Your task to perform on an android device: Clear the shopping cart on ebay.com. Add "jbl charge 4" to the cart on ebay.com Image 0: 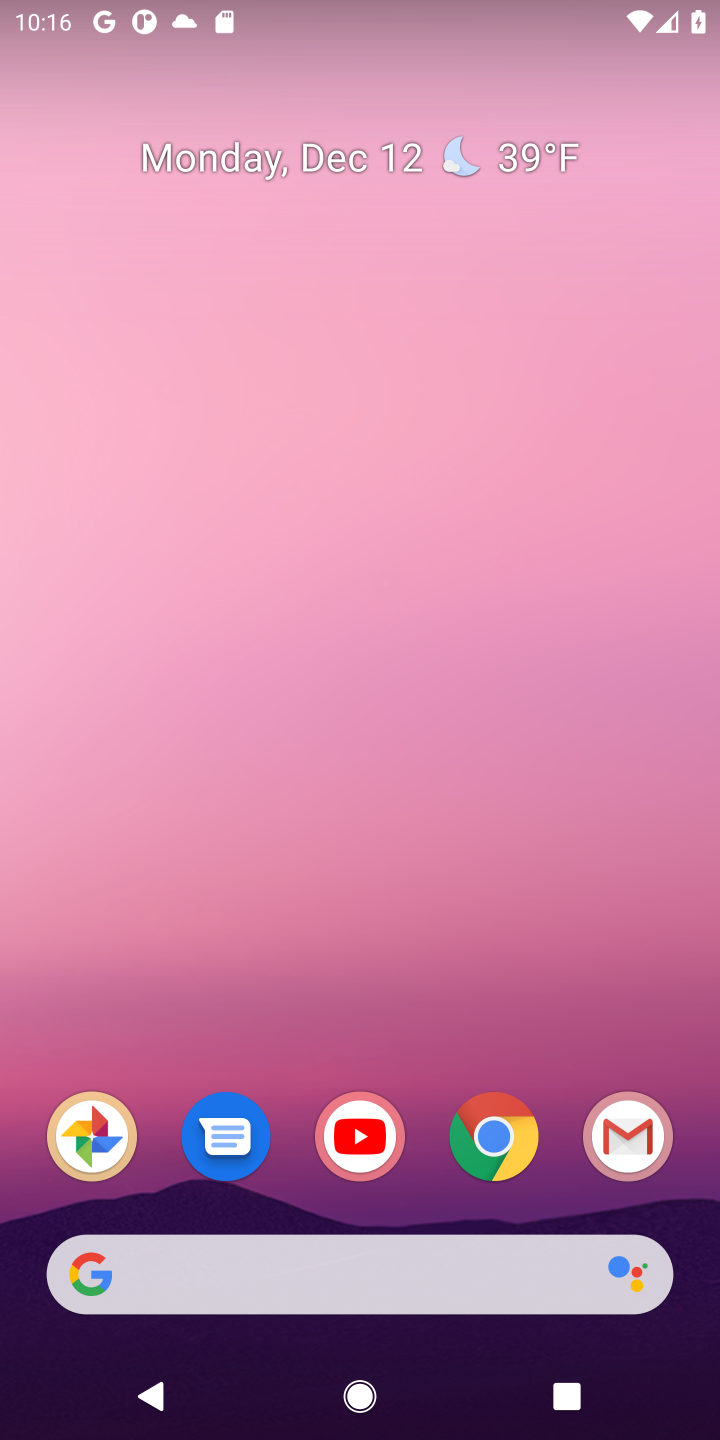
Step 0: click (489, 1143)
Your task to perform on an android device: Clear the shopping cart on ebay.com. Add "jbl charge 4" to the cart on ebay.com Image 1: 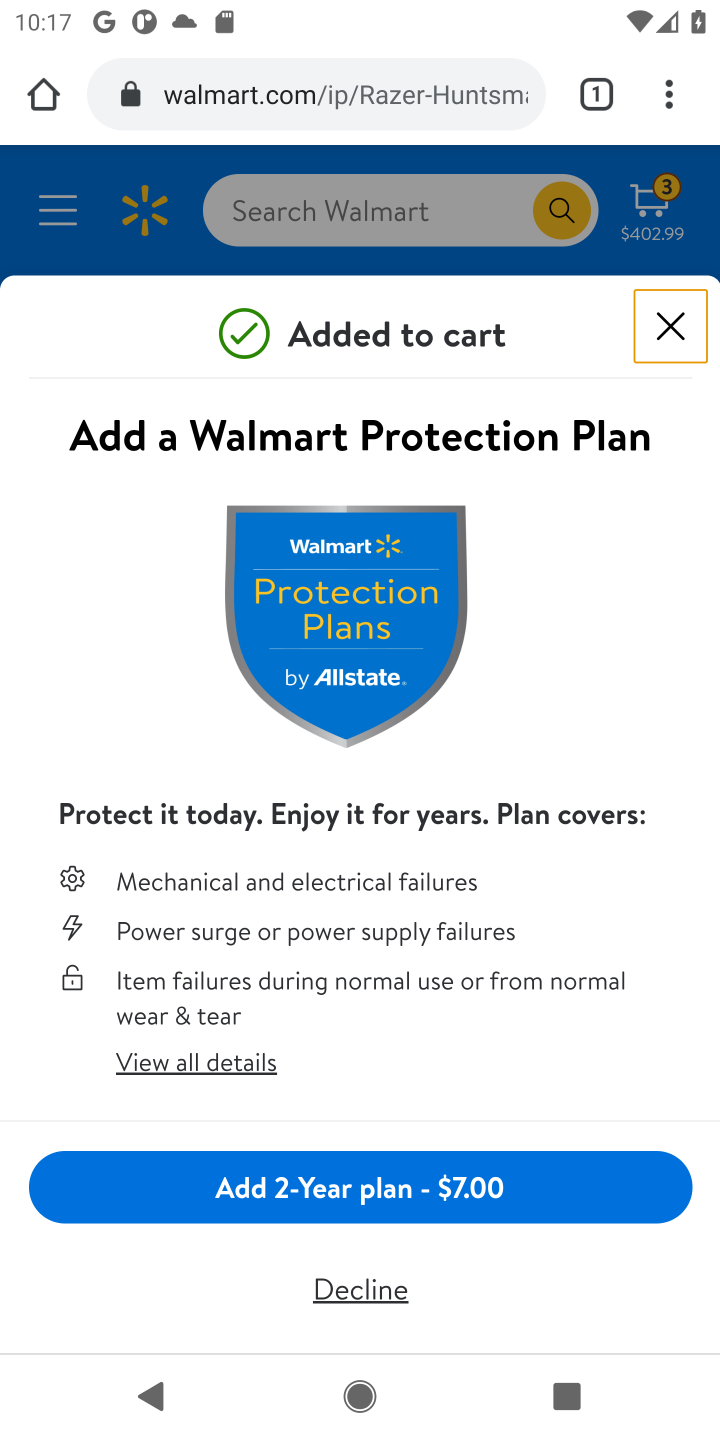
Step 1: click (360, 92)
Your task to perform on an android device: Clear the shopping cart on ebay.com. Add "jbl charge 4" to the cart on ebay.com Image 2: 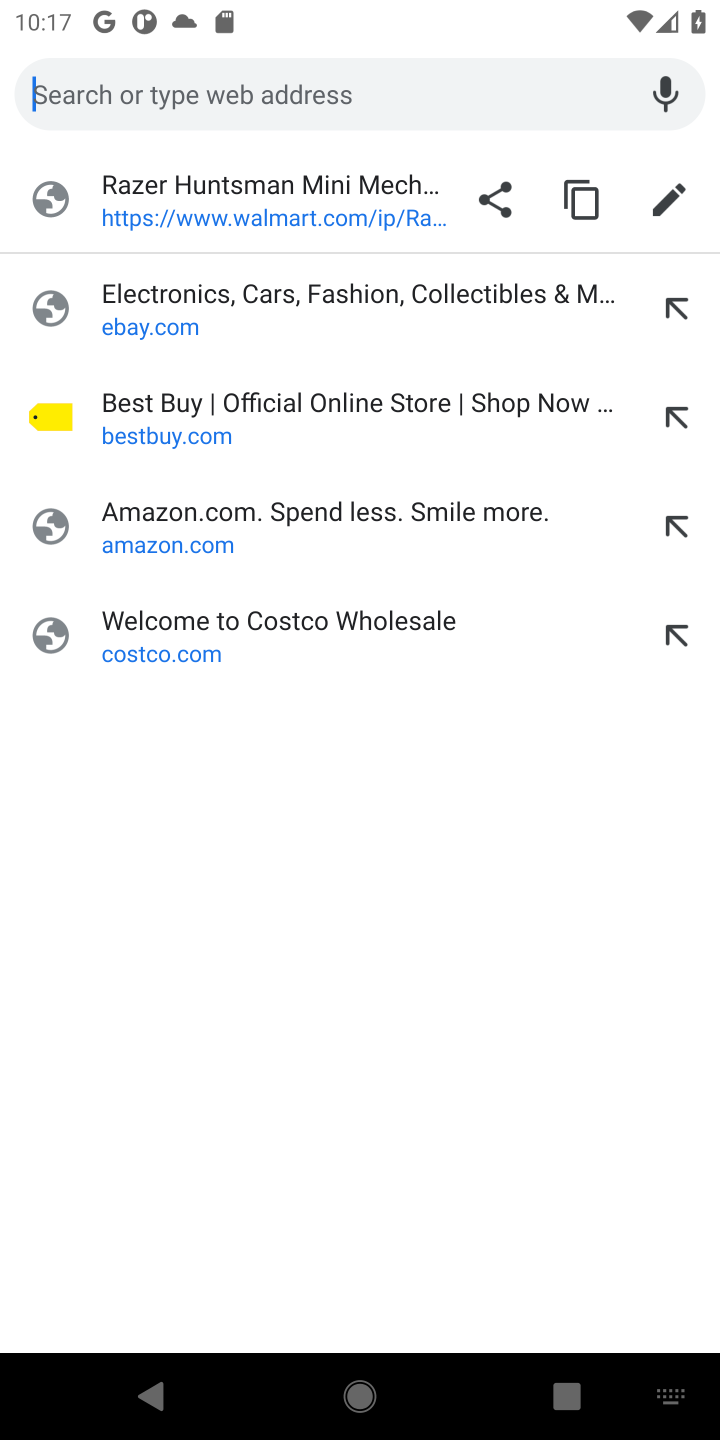
Step 2: click (143, 301)
Your task to perform on an android device: Clear the shopping cart on ebay.com. Add "jbl charge 4" to the cart on ebay.com Image 3: 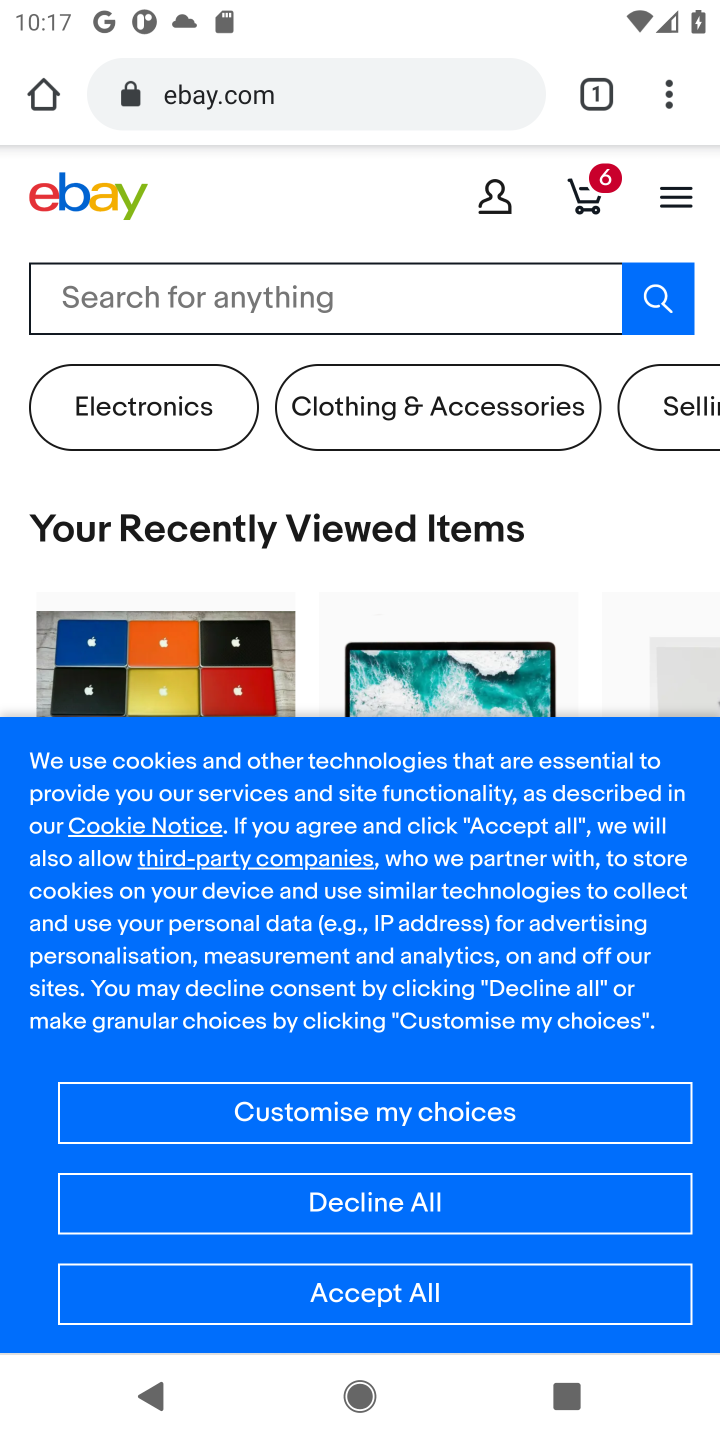
Step 3: click (585, 200)
Your task to perform on an android device: Clear the shopping cart on ebay.com. Add "jbl charge 4" to the cart on ebay.com Image 4: 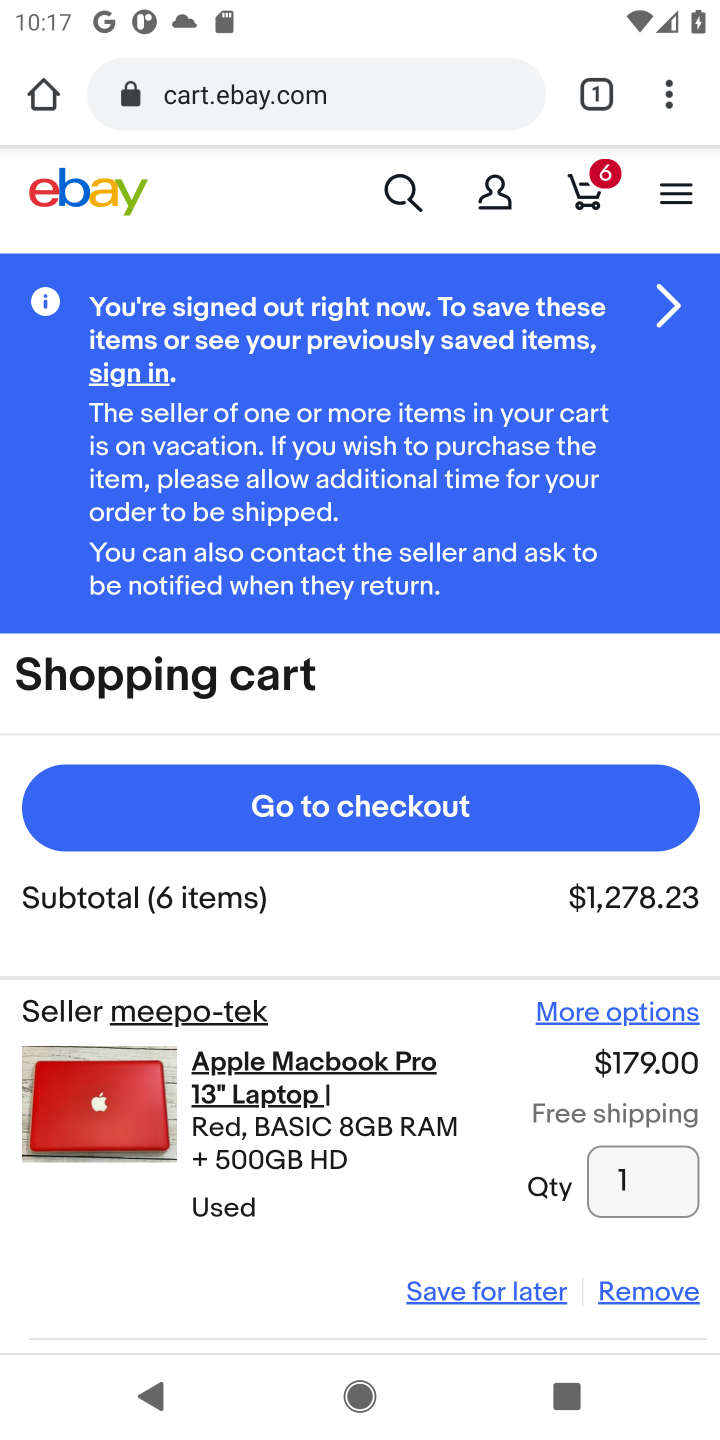
Step 4: click (637, 1294)
Your task to perform on an android device: Clear the shopping cart on ebay.com. Add "jbl charge 4" to the cart on ebay.com Image 5: 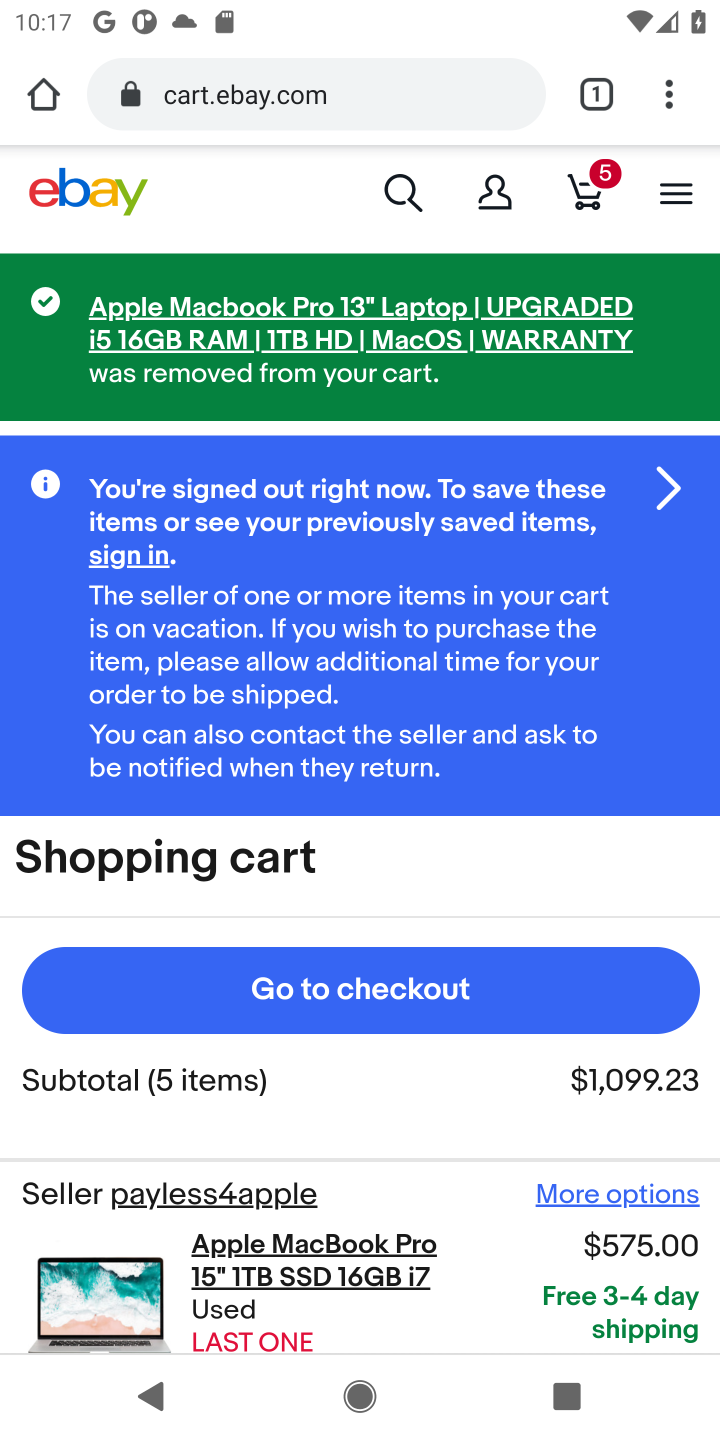
Step 5: drag from (480, 1109) to (369, 513)
Your task to perform on an android device: Clear the shopping cart on ebay.com. Add "jbl charge 4" to the cart on ebay.com Image 6: 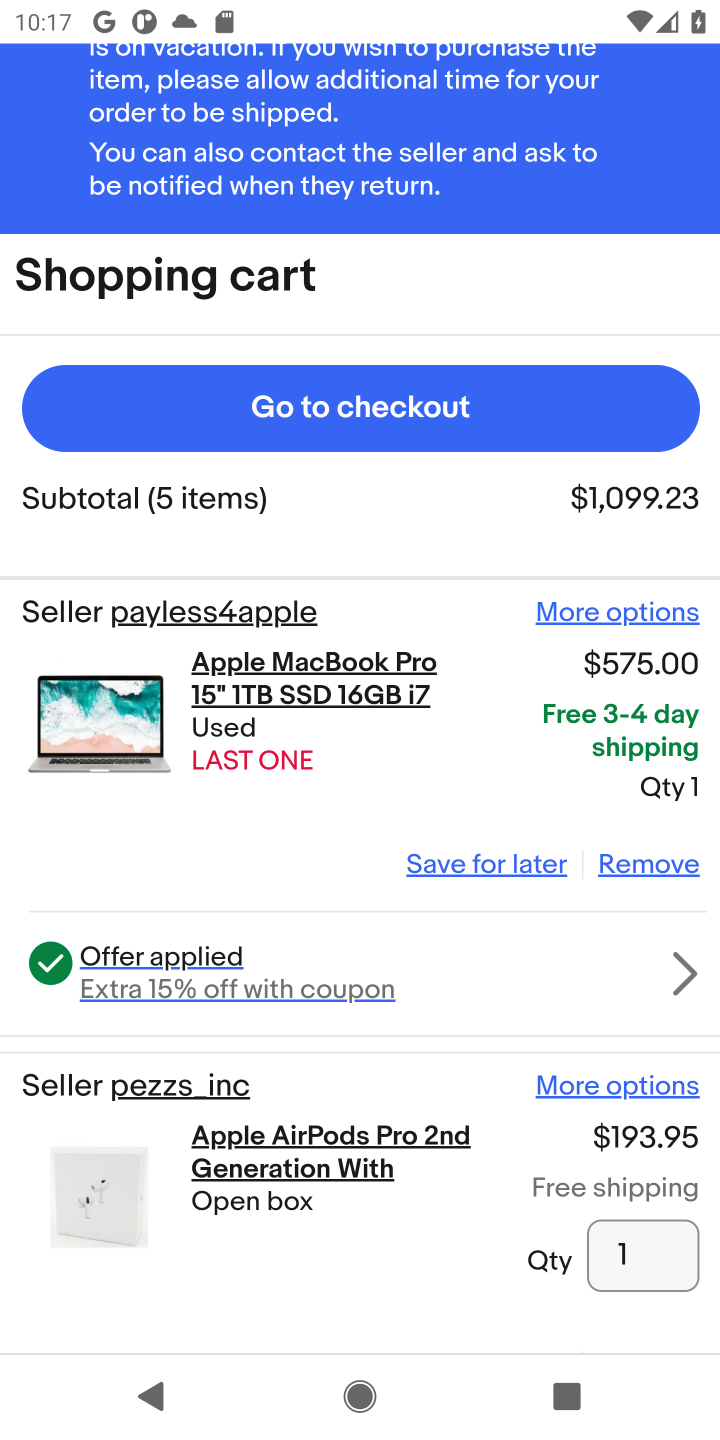
Step 6: click (632, 867)
Your task to perform on an android device: Clear the shopping cart on ebay.com. Add "jbl charge 4" to the cart on ebay.com Image 7: 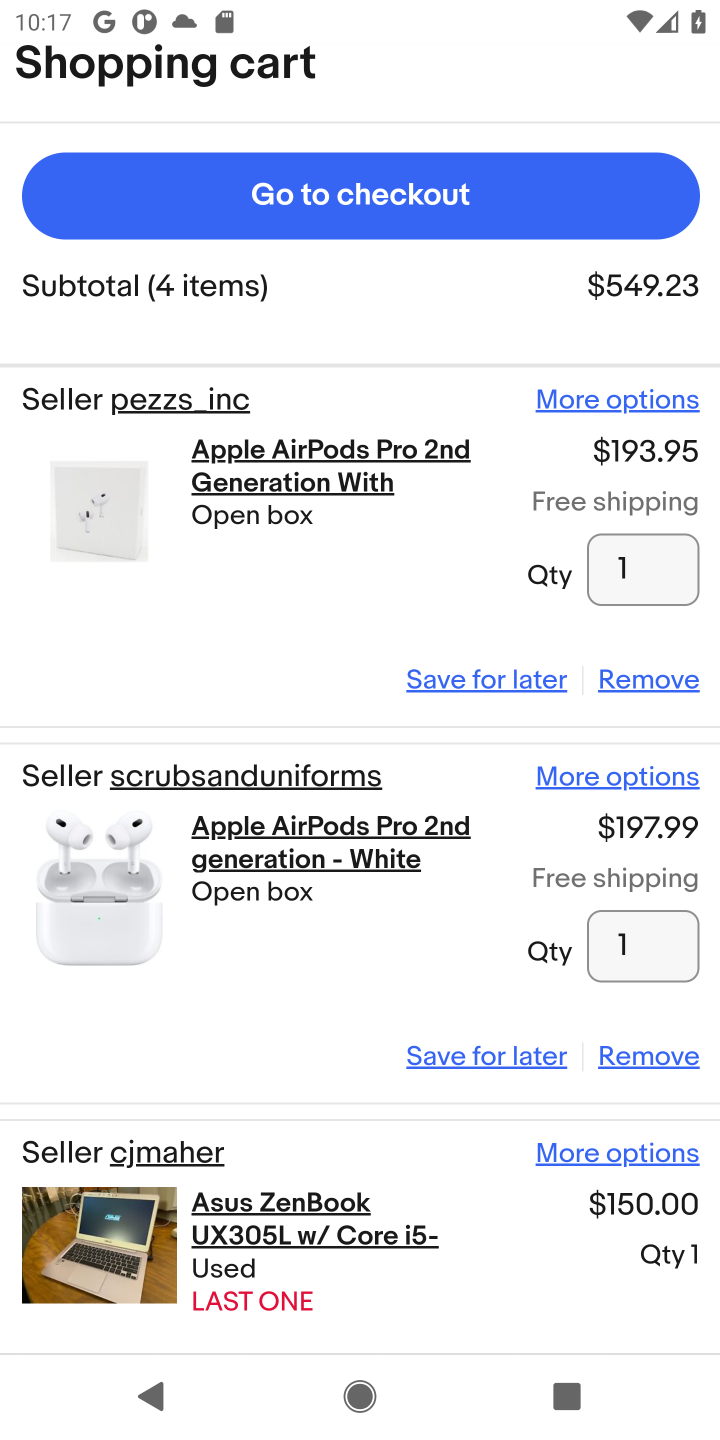
Step 7: click (623, 678)
Your task to perform on an android device: Clear the shopping cart on ebay.com. Add "jbl charge 4" to the cart on ebay.com Image 8: 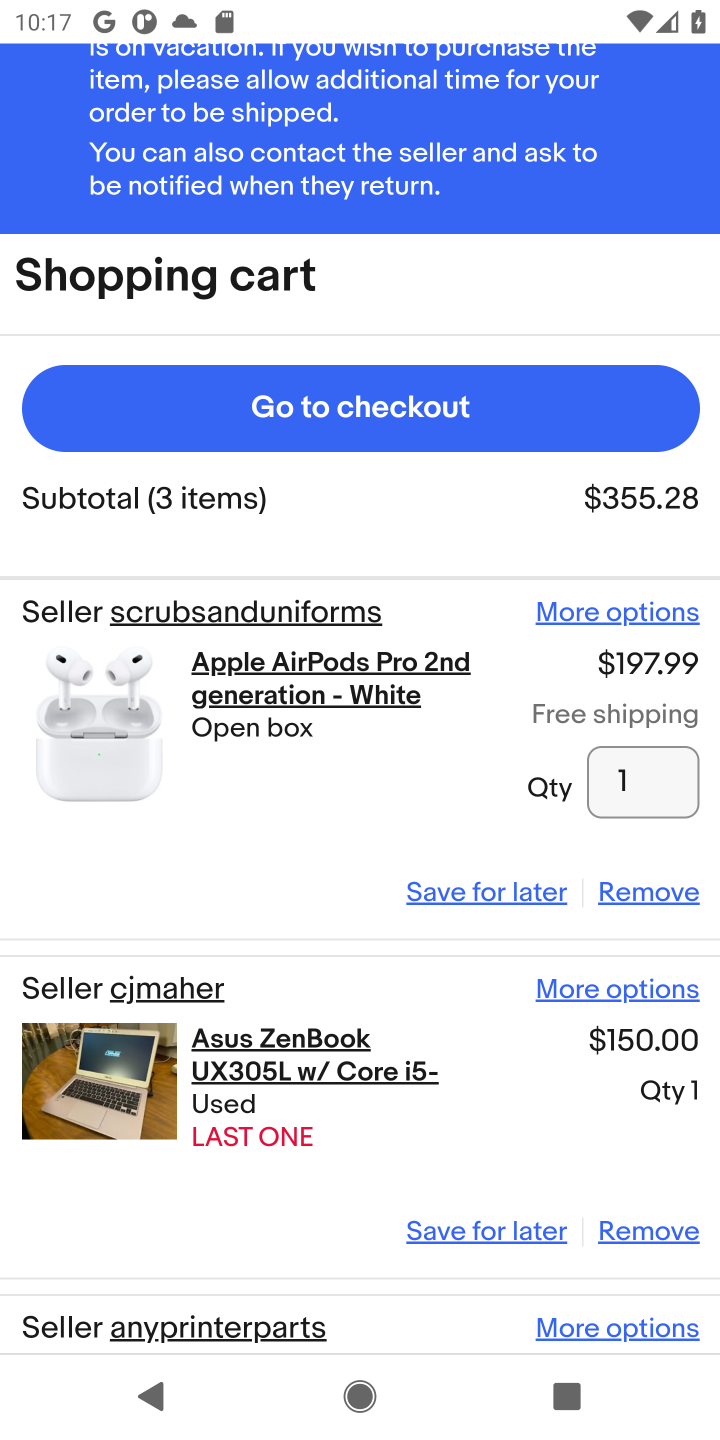
Step 8: click (637, 904)
Your task to perform on an android device: Clear the shopping cart on ebay.com. Add "jbl charge 4" to the cart on ebay.com Image 9: 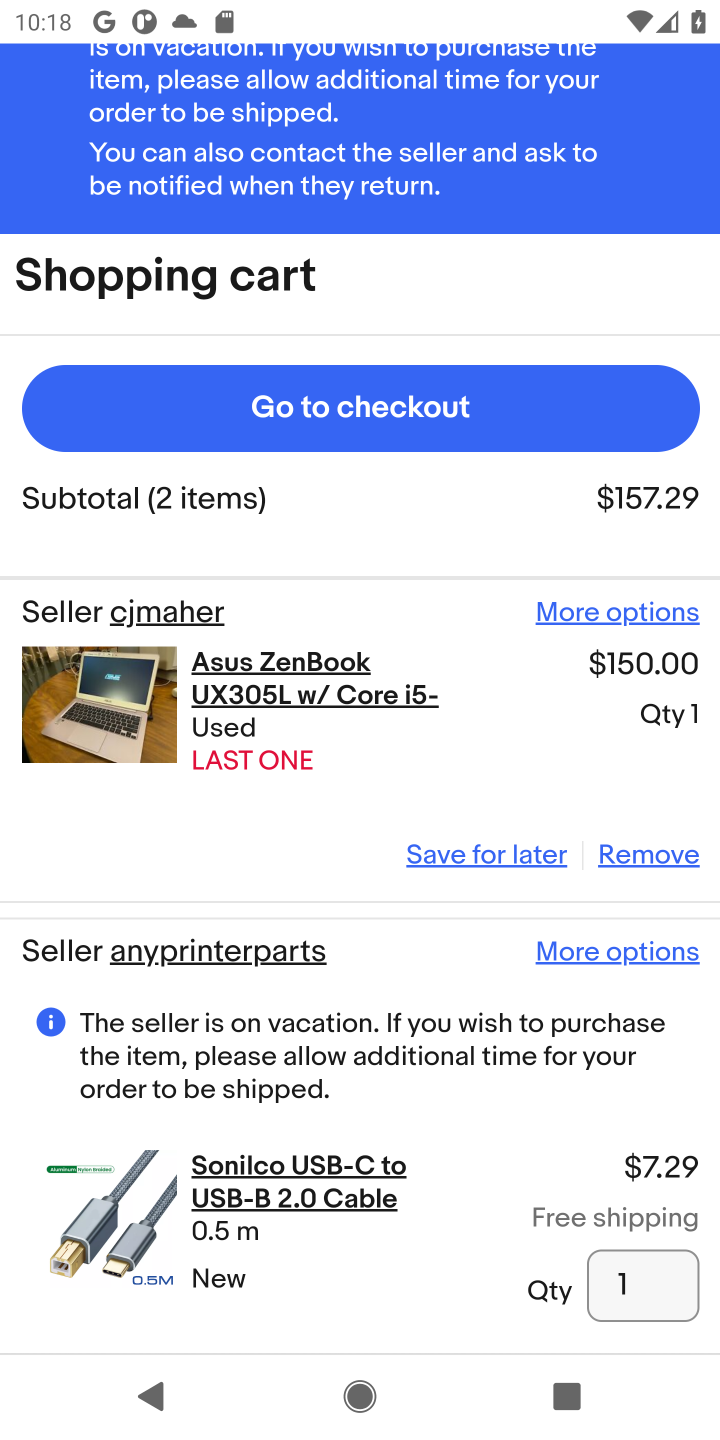
Step 9: click (643, 867)
Your task to perform on an android device: Clear the shopping cart on ebay.com. Add "jbl charge 4" to the cart on ebay.com Image 10: 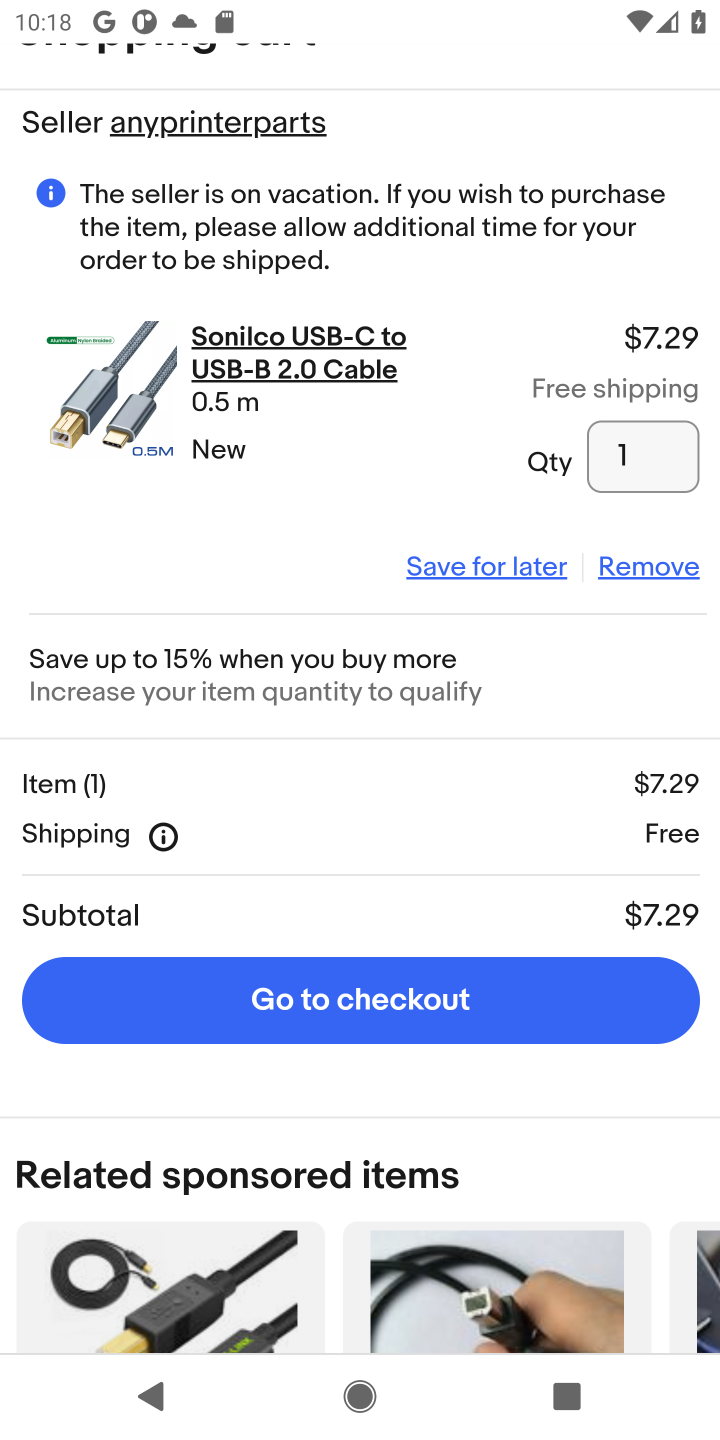
Step 10: click (654, 573)
Your task to perform on an android device: Clear the shopping cart on ebay.com. Add "jbl charge 4" to the cart on ebay.com Image 11: 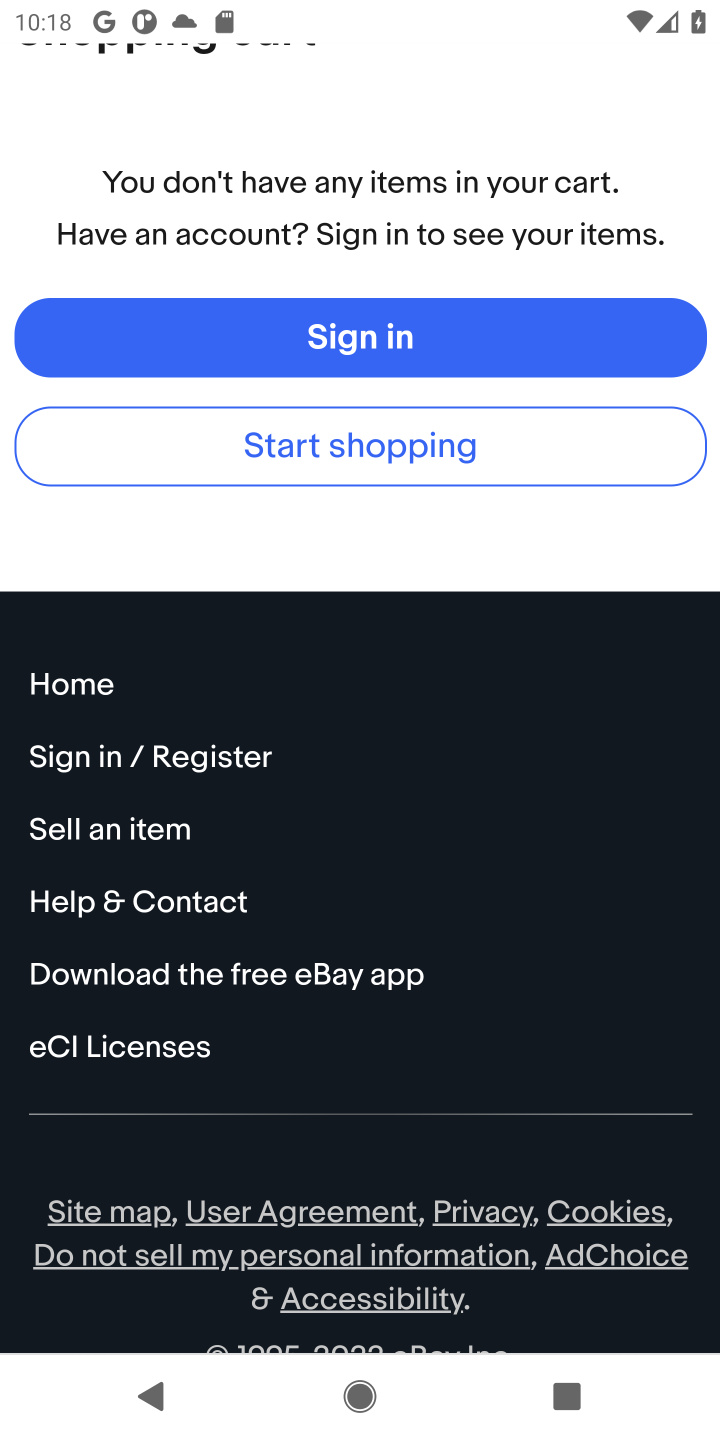
Step 11: drag from (596, 554) to (609, 731)
Your task to perform on an android device: Clear the shopping cart on ebay.com. Add "jbl charge 4" to the cart on ebay.com Image 12: 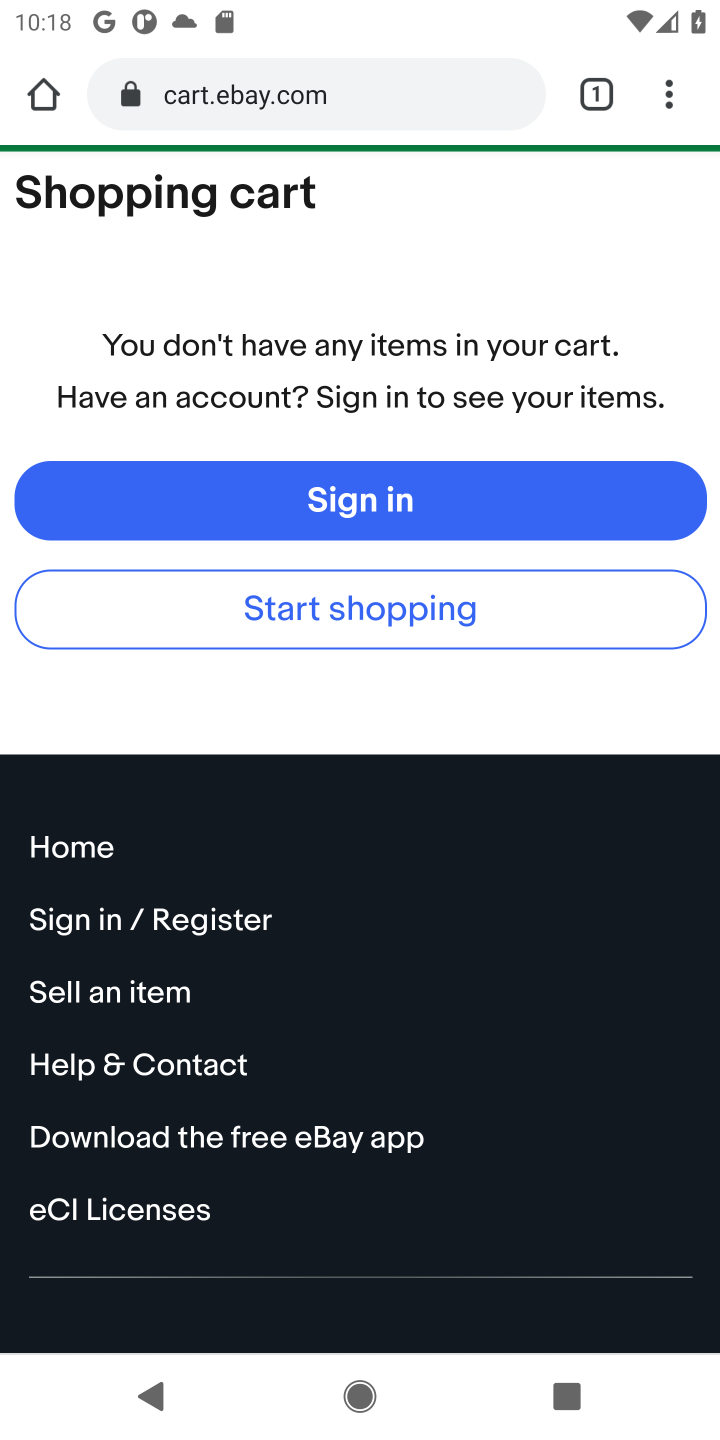
Step 12: drag from (546, 256) to (537, 760)
Your task to perform on an android device: Clear the shopping cart on ebay.com. Add "jbl charge 4" to the cart on ebay.com Image 13: 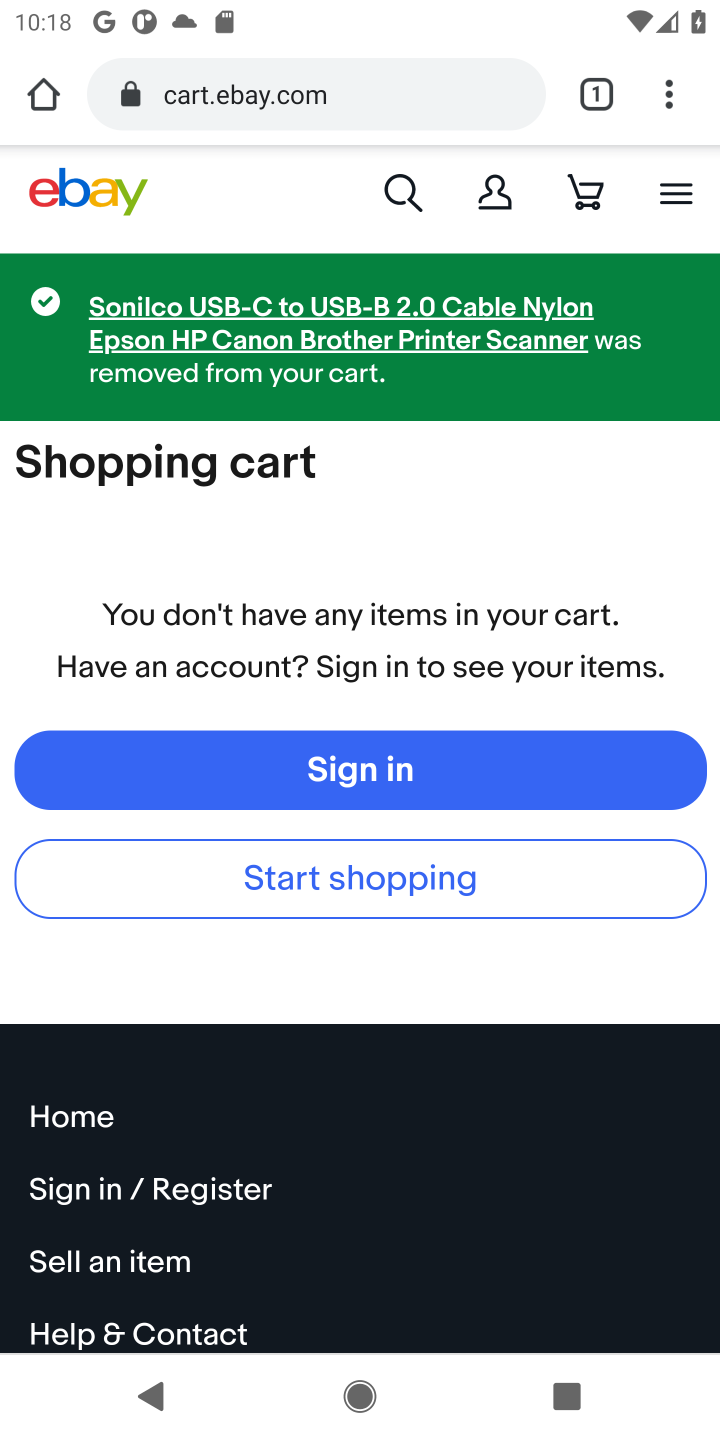
Step 13: click (387, 197)
Your task to perform on an android device: Clear the shopping cart on ebay.com. Add "jbl charge 4" to the cart on ebay.com Image 14: 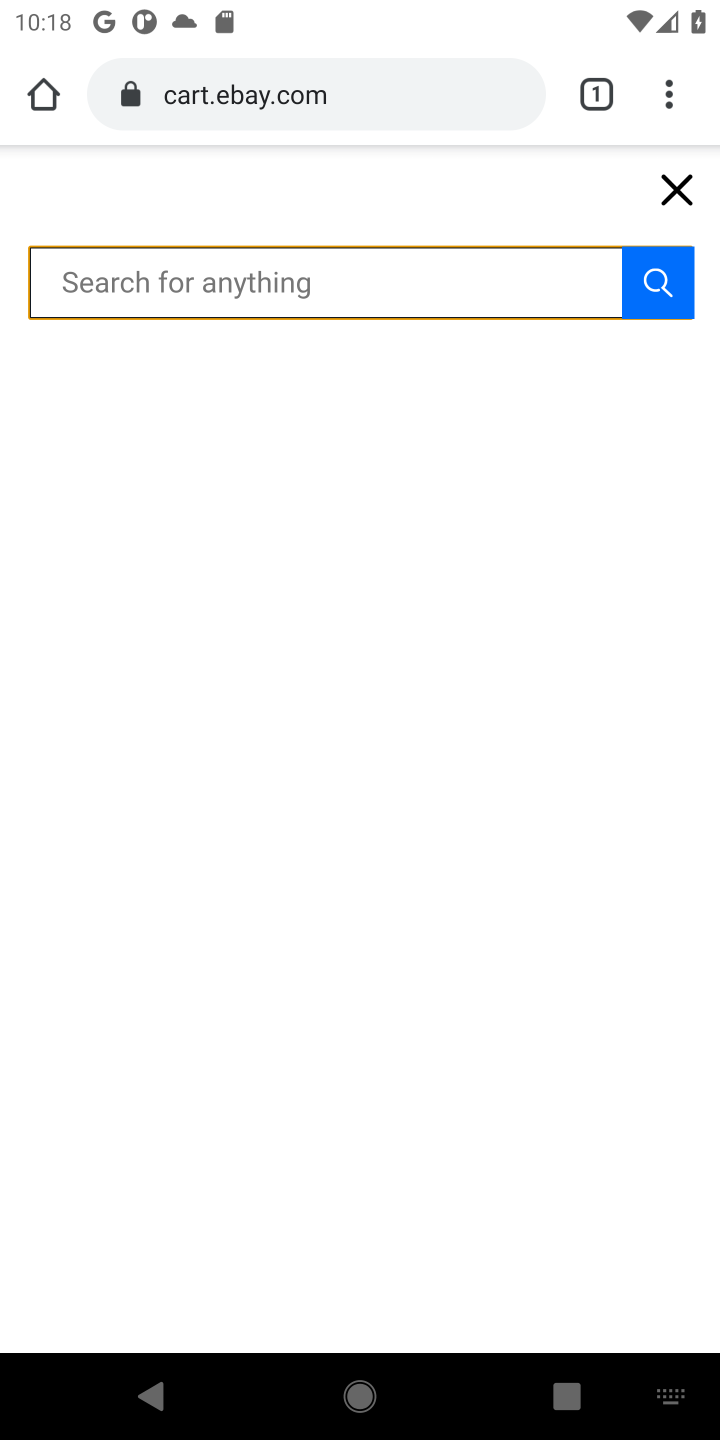
Step 14: type "jbl charge 4"
Your task to perform on an android device: Clear the shopping cart on ebay.com. Add "jbl charge 4" to the cart on ebay.com Image 15: 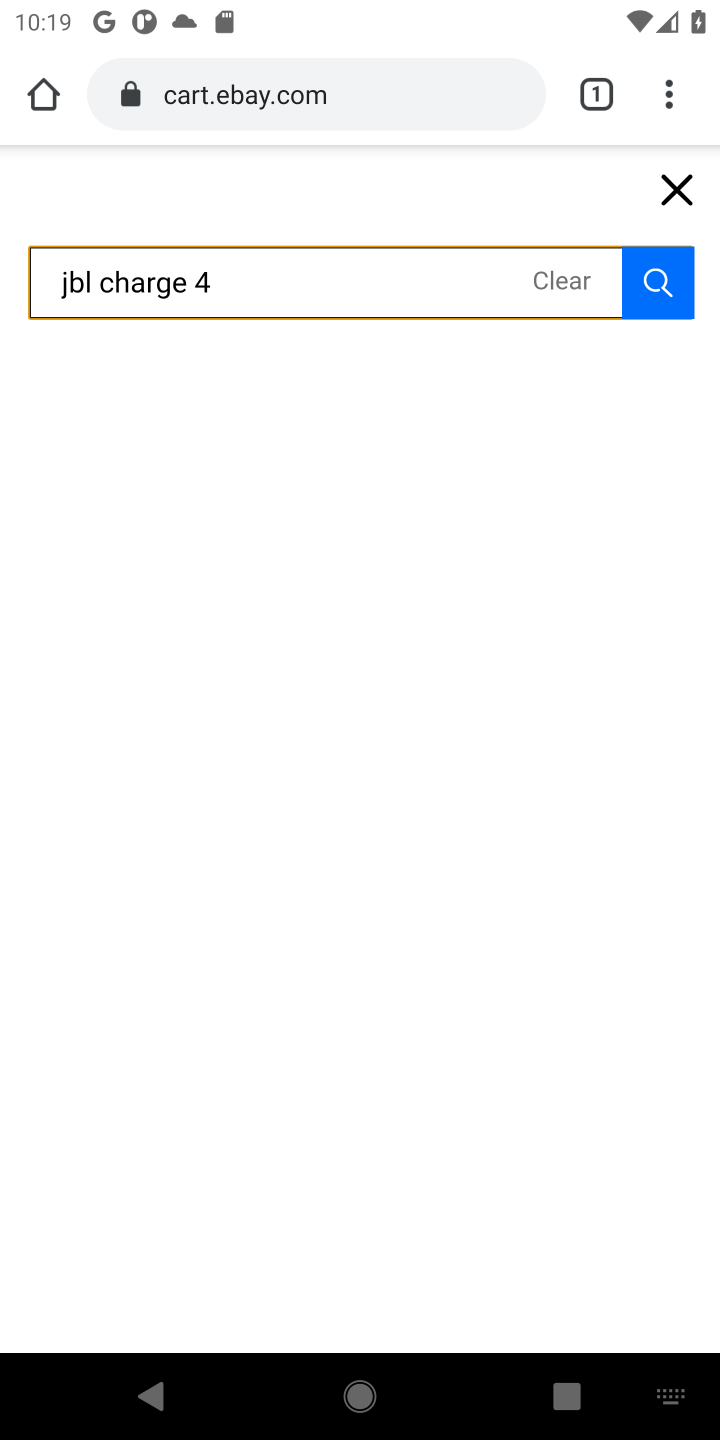
Step 15: click (647, 287)
Your task to perform on an android device: Clear the shopping cart on ebay.com. Add "jbl charge 4" to the cart on ebay.com Image 16: 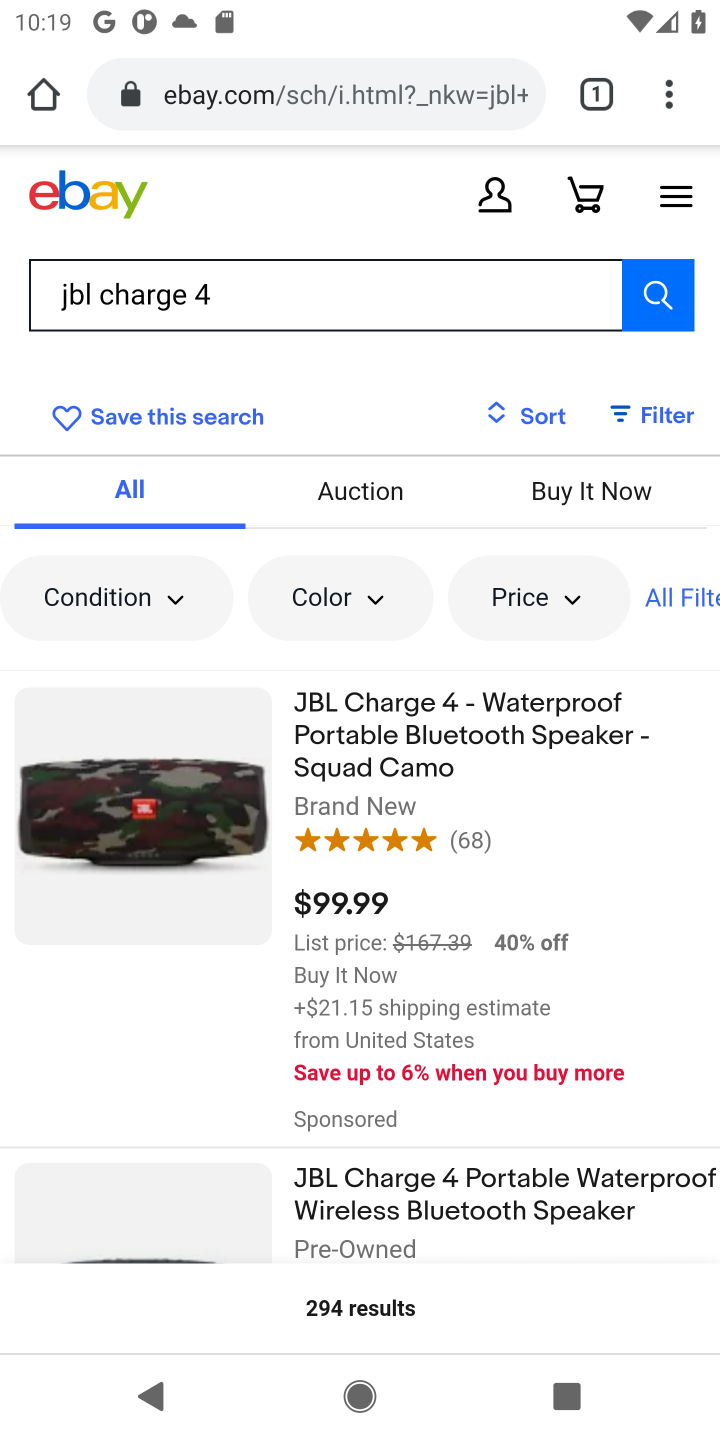
Step 16: click (361, 768)
Your task to perform on an android device: Clear the shopping cart on ebay.com. Add "jbl charge 4" to the cart on ebay.com Image 17: 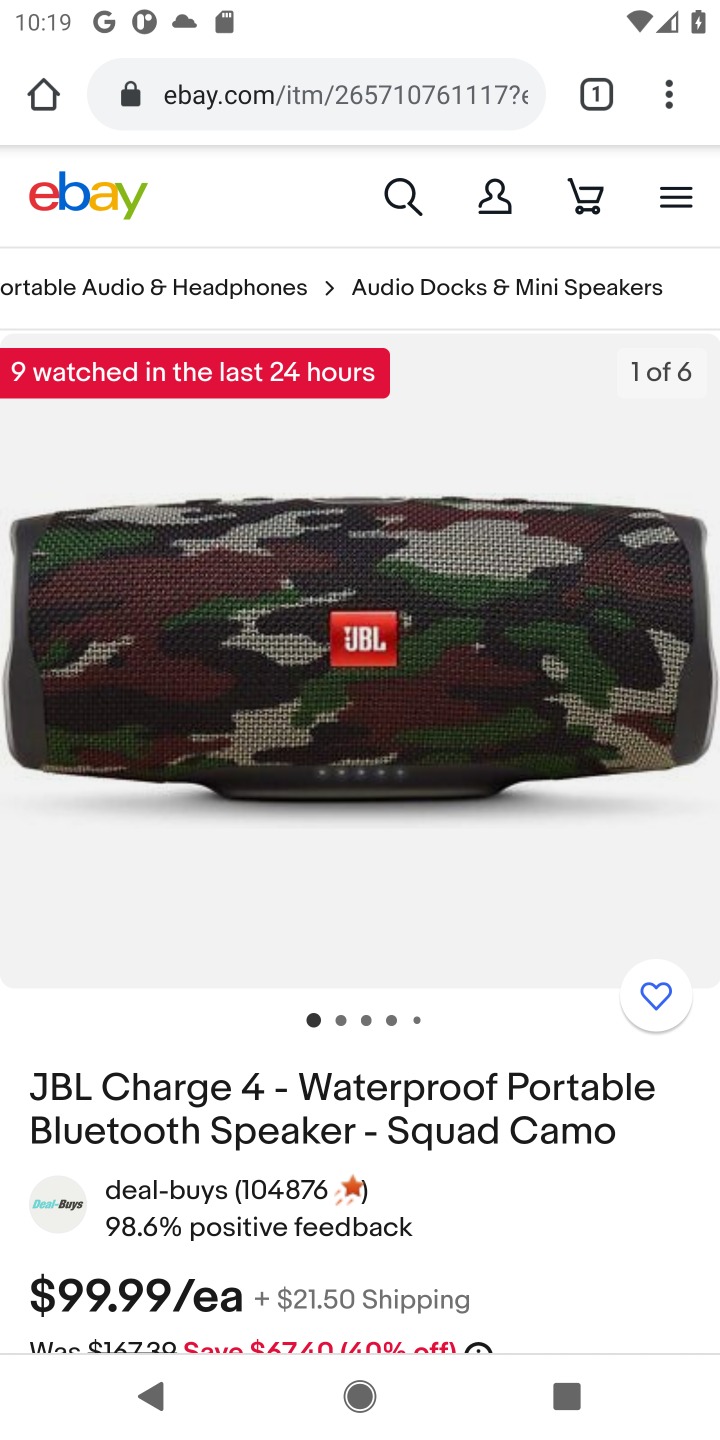
Step 17: drag from (382, 925) to (385, 502)
Your task to perform on an android device: Clear the shopping cart on ebay.com. Add "jbl charge 4" to the cart on ebay.com Image 18: 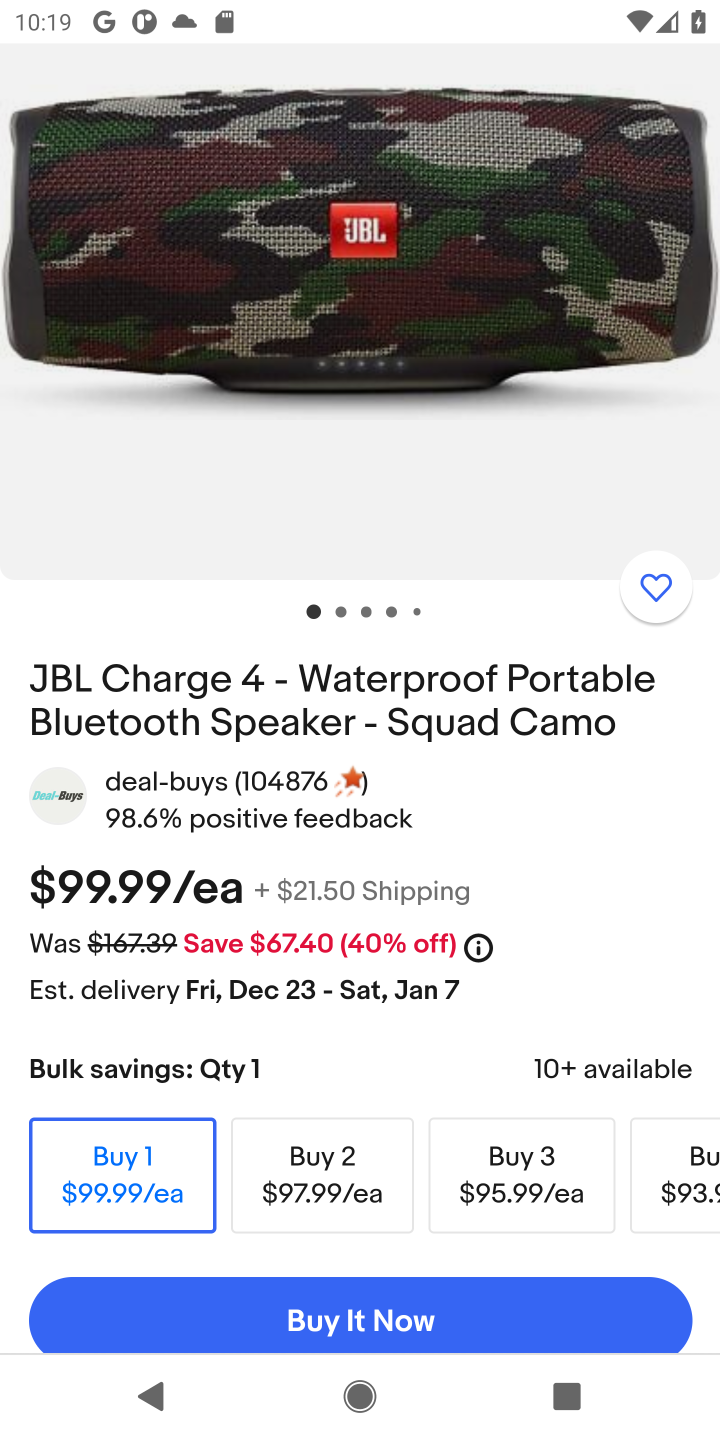
Step 18: drag from (422, 1043) to (428, 597)
Your task to perform on an android device: Clear the shopping cart on ebay.com. Add "jbl charge 4" to the cart on ebay.com Image 19: 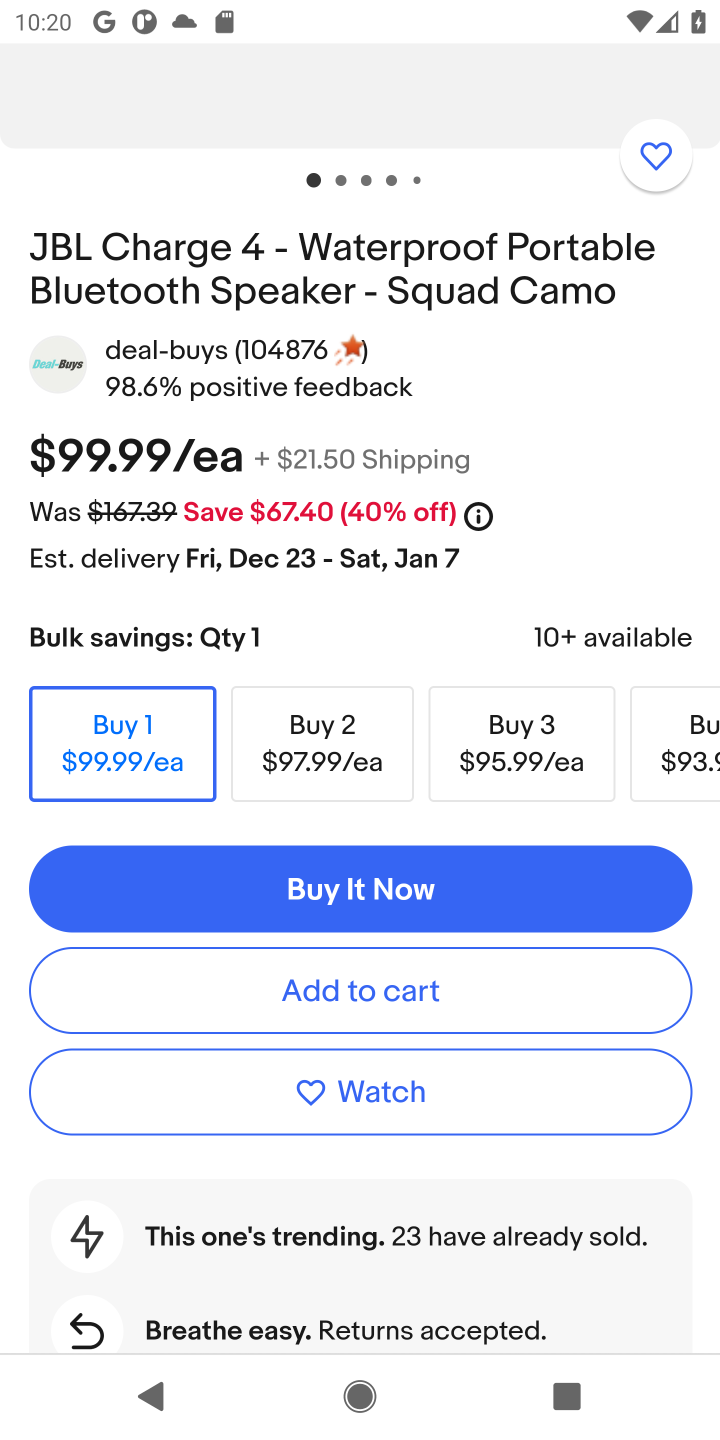
Step 19: click (339, 1001)
Your task to perform on an android device: Clear the shopping cart on ebay.com. Add "jbl charge 4" to the cart on ebay.com Image 20: 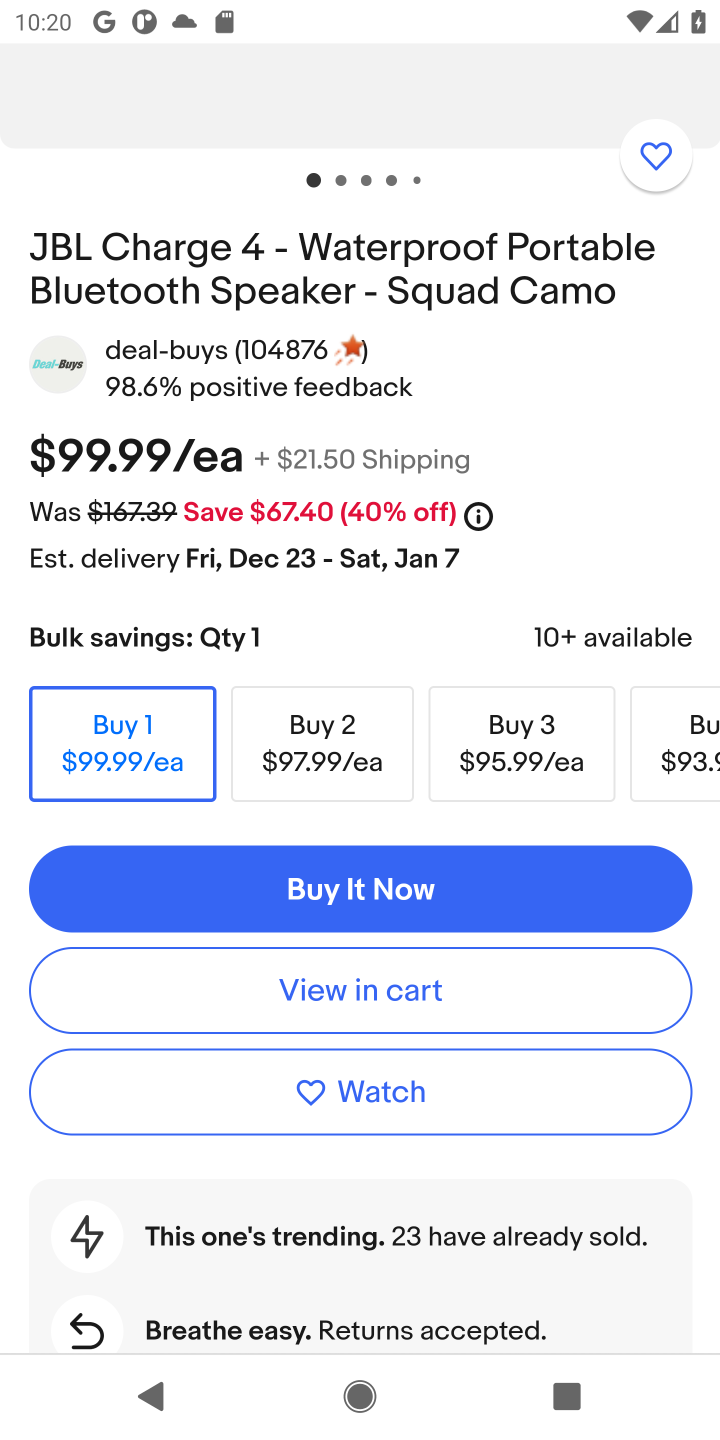
Step 20: task complete